Your task to perform on an android device: Do I have any events today? Image 0: 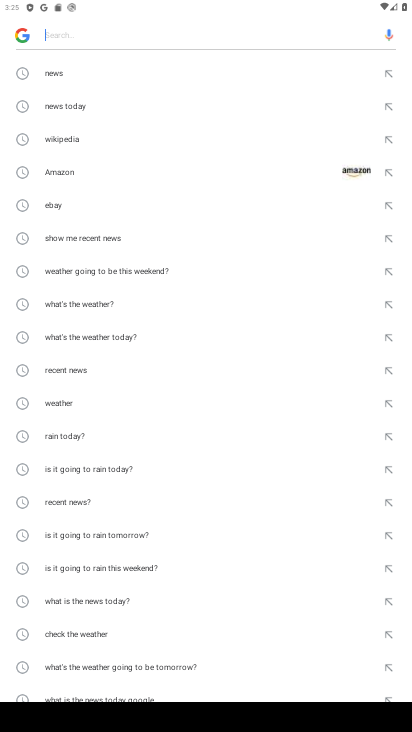
Step 0: press home button
Your task to perform on an android device: Do I have any events today? Image 1: 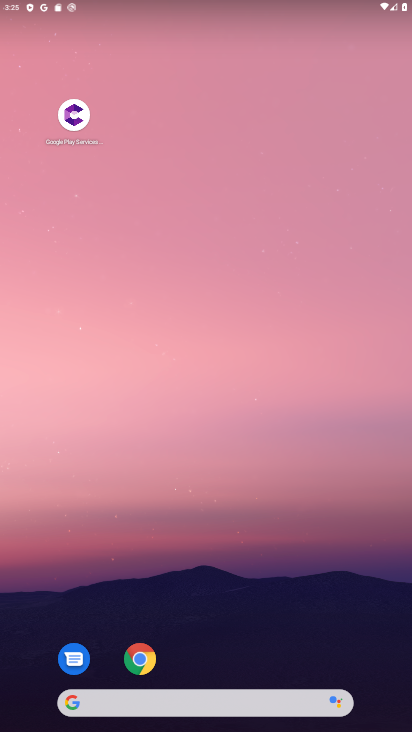
Step 1: drag from (312, 603) to (308, 136)
Your task to perform on an android device: Do I have any events today? Image 2: 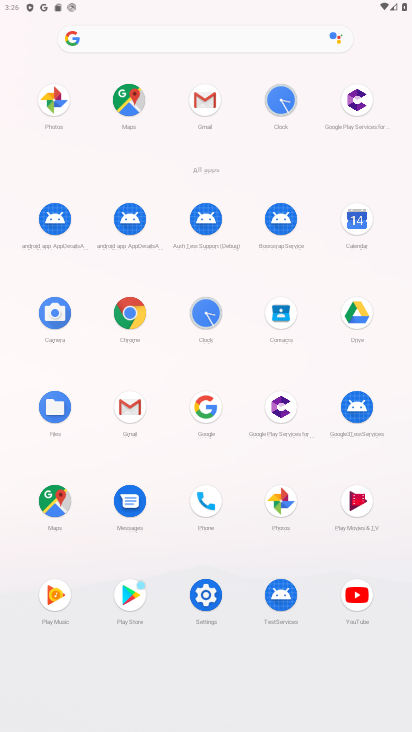
Step 2: click (361, 226)
Your task to perform on an android device: Do I have any events today? Image 3: 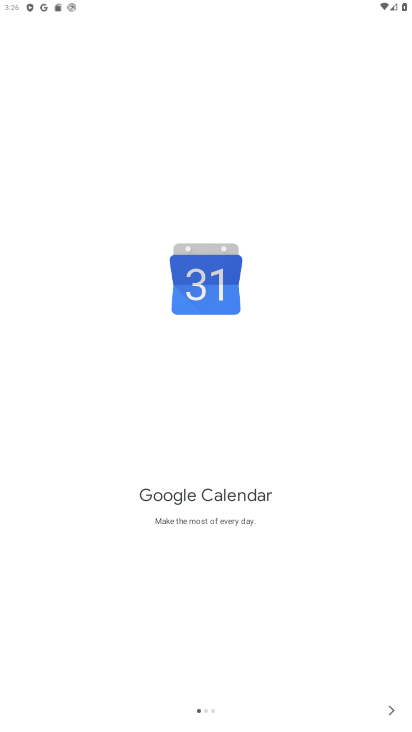
Step 3: drag from (263, 300) to (275, 492)
Your task to perform on an android device: Do I have any events today? Image 4: 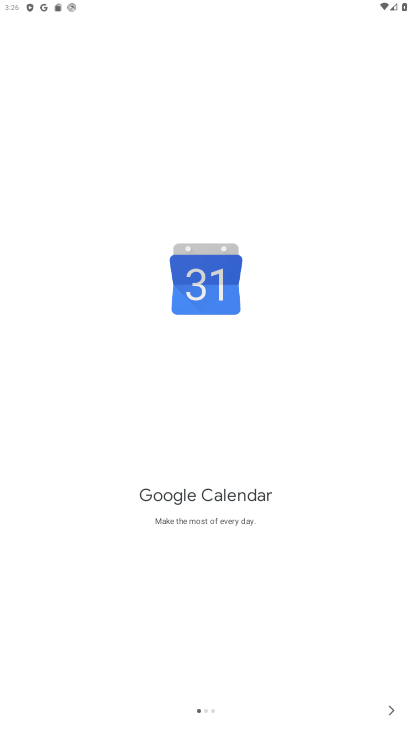
Step 4: click (383, 712)
Your task to perform on an android device: Do I have any events today? Image 5: 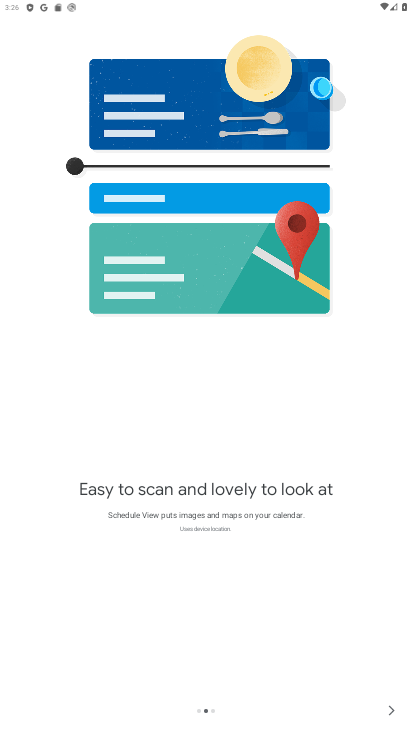
Step 5: click (384, 709)
Your task to perform on an android device: Do I have any events today? Image 6: 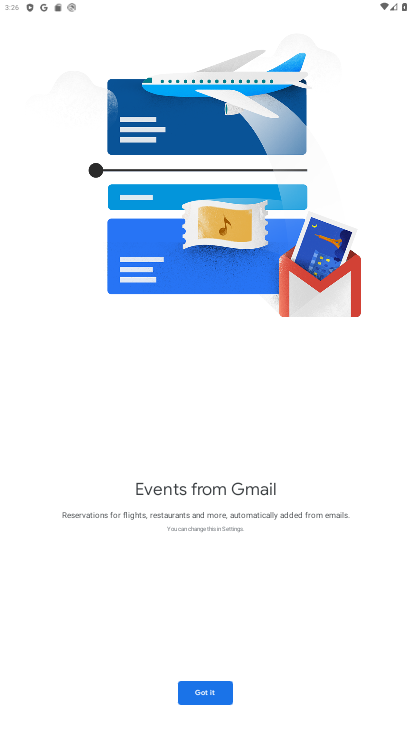
Step 6: click (215, 694)
Your task to perform on an android device: Do I have any events today? Image 7: 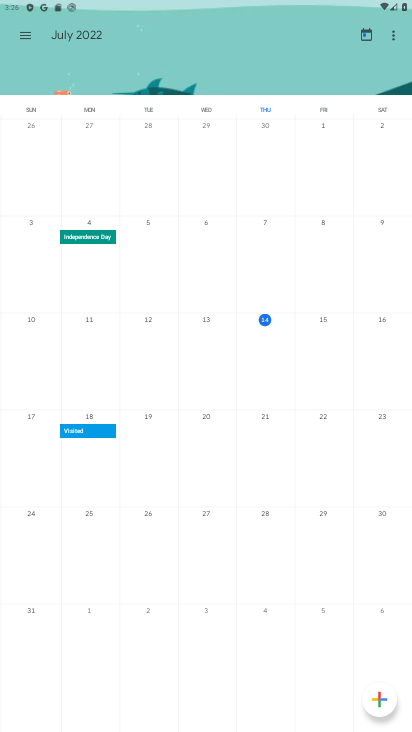
Step 7: click (25, 42)
Your task to perform on an android device: Do I have any events today? Image 8: 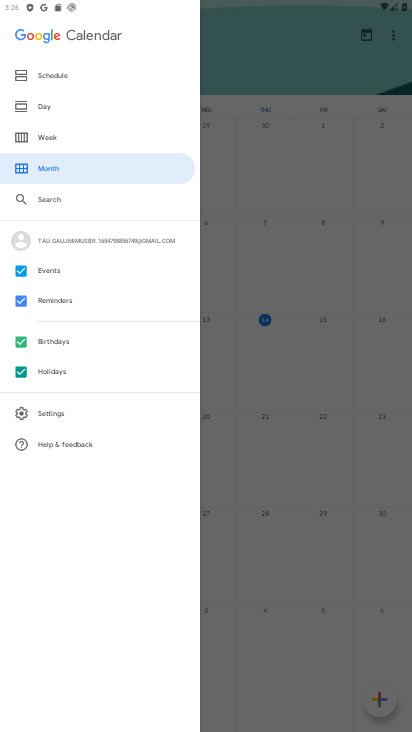
Step 8: click (37, 82)
Your task to perform on an android device: Do I have any events today? Image 9: 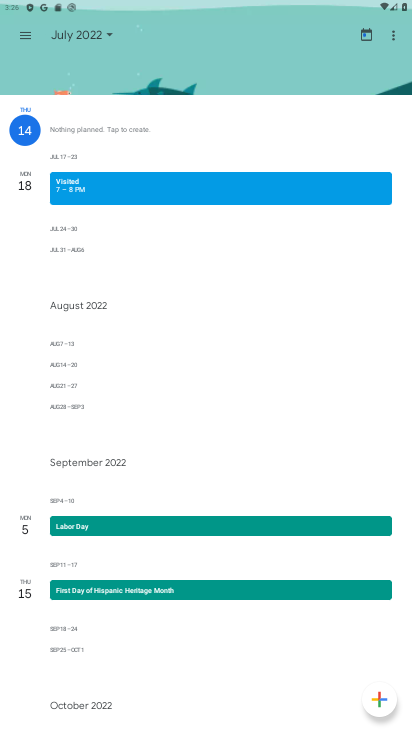
Step 9: click (113, 36)
Your task to perform on an android device: Do I have any events today? Image 10: 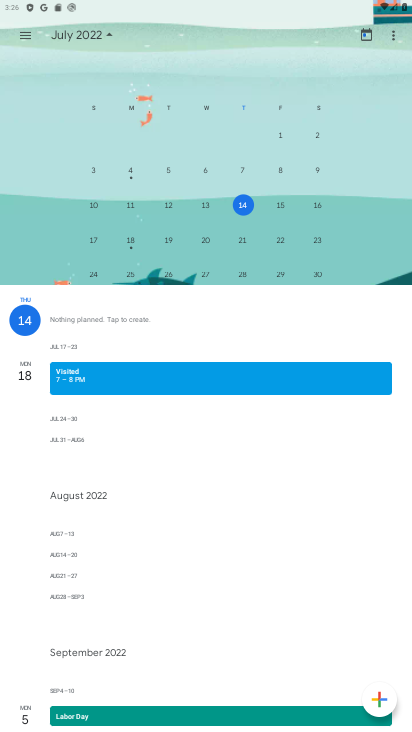
Step 10: click (236, 206)
Your task to perform on an android device: Do I have any events today? Image 11: 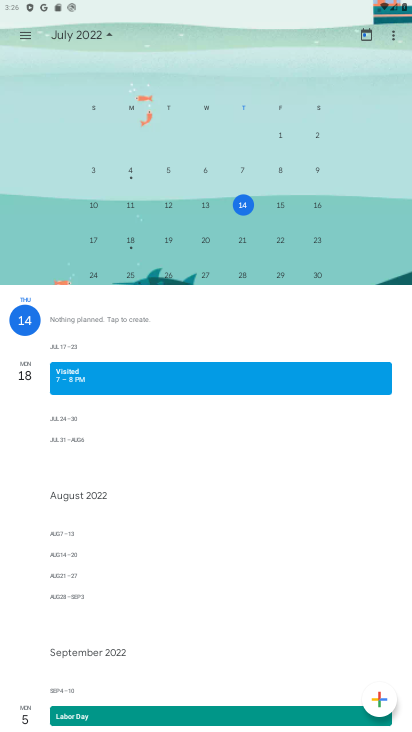
Step 11: task complete